Your task to perform on an android device: Do I have any events today? Image 0: 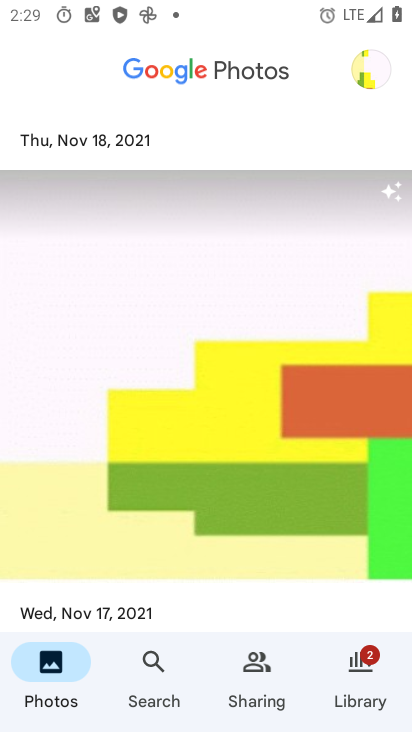
Step 0: press home button
Your task to perform on an android device: Do I have any events today? Image 1: 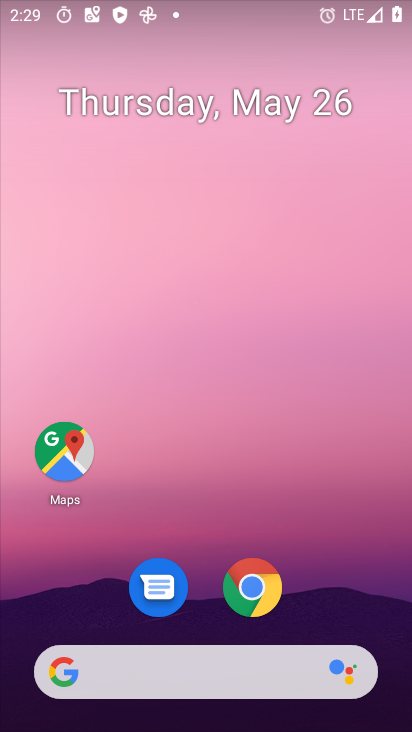
Step 1: drag from (358, 588) to (377, 189)
Your task to perform on an android device: Do I have any events today? Image 2: 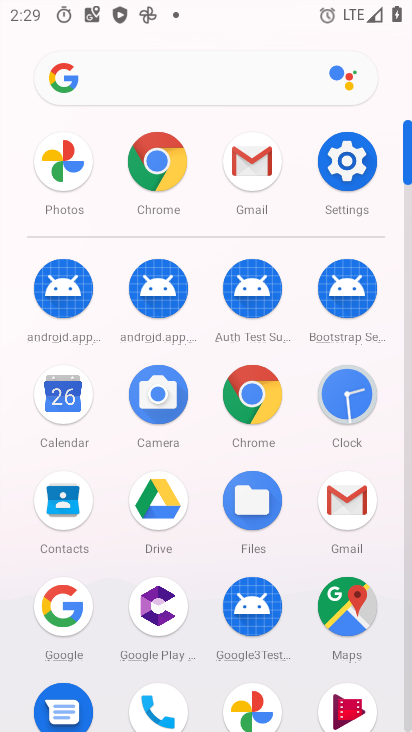
Step 2: click (56, 397)
Your task to perform on an android device: Do I have any events today? Image 3: 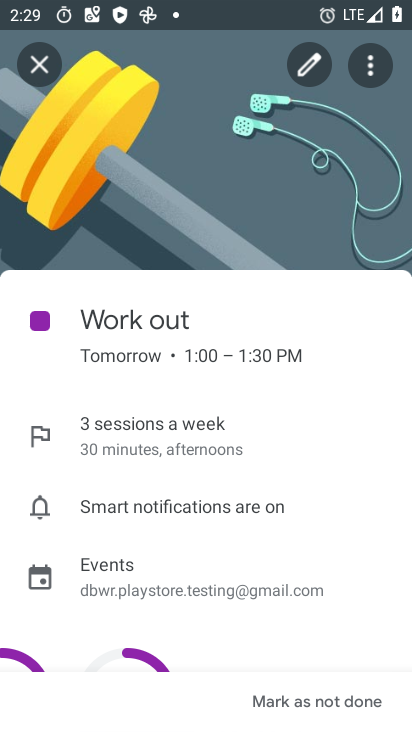
Step 3: press back button
Your task to perform on an android device: Do I have any events today? Image 4: 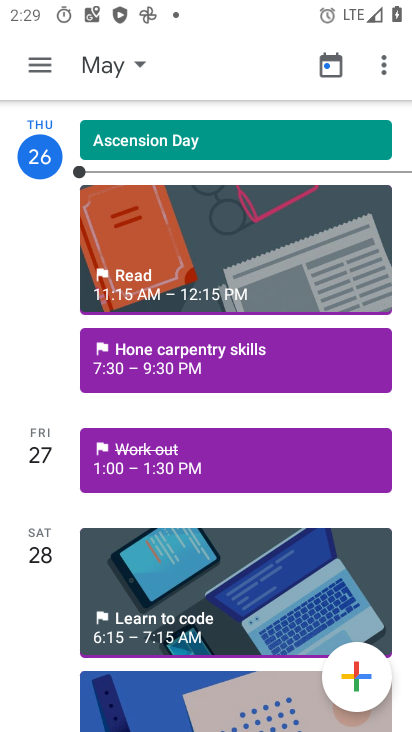
Step 4: click (133, 218)
Your task to perform on an android device: Do I have any events today? Image 5: 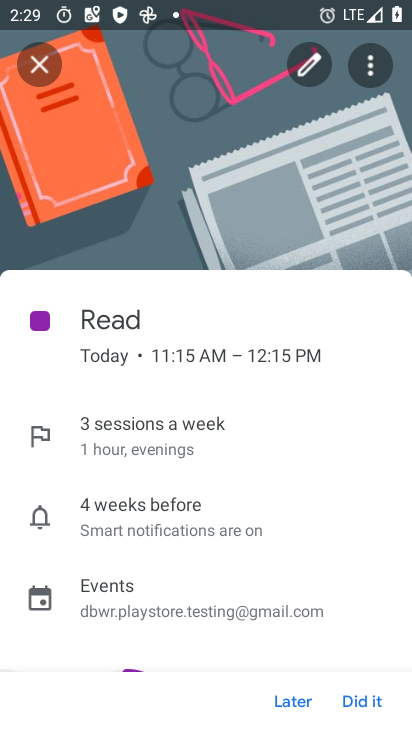
Step 5: task complete